Your task to perform on an android device: Go to Wikipedia Image 0: 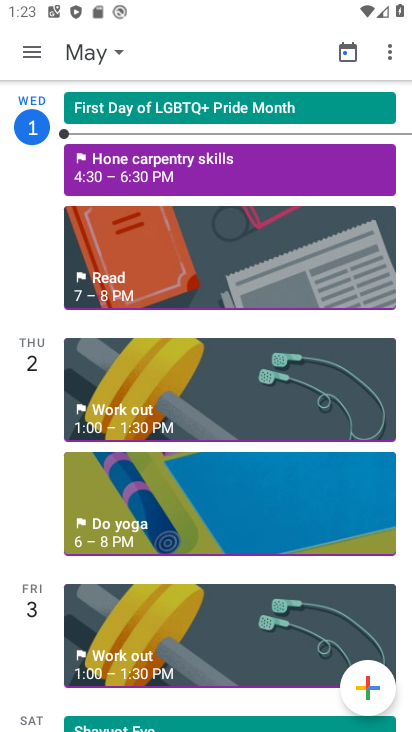
Step 0: task complete